Your task to perform on an android device: toggle pop-ups in chrome Image 0: 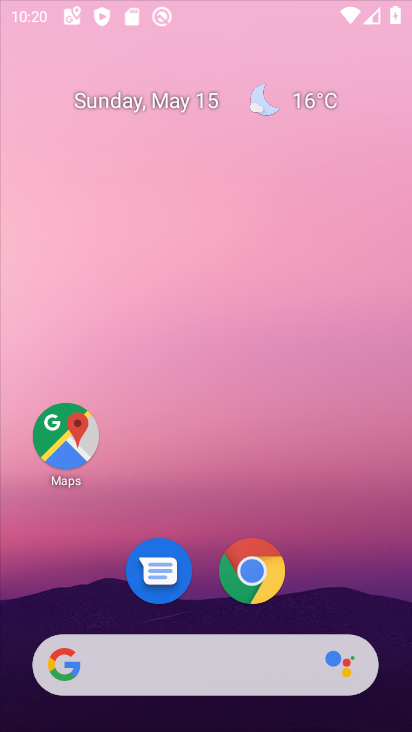
Step 0: press home button
Your task to perform on an android device: toggle pop-ups in chrome Image 1: 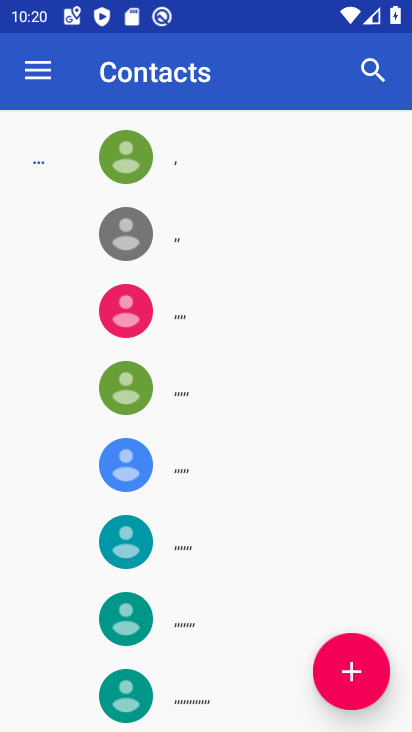
Step 1: press home button
Your task to perform on an android device: toggle pop-ups in chrome Image 2: 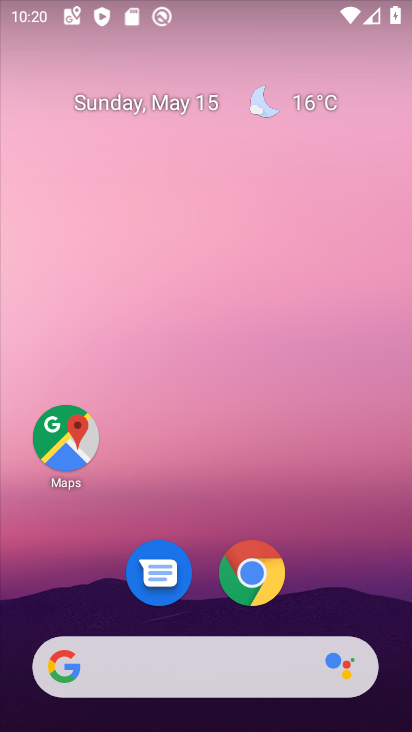
Step 2: click (232, 575)
Your task to perform on an android device: toggle pop-ups in chrome Image 3: 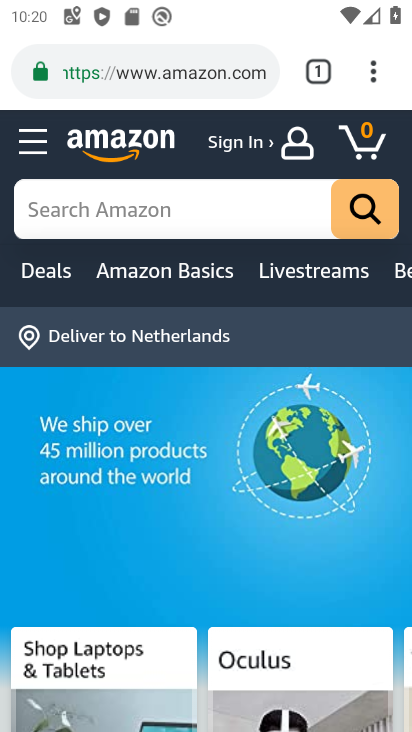
Step 3: click (366, 63)
Your task to perform on an android device: toggle pop-ups in chrome Image 4: 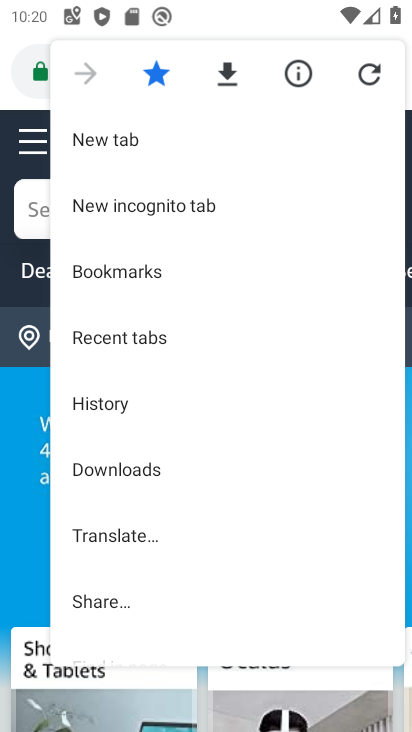
Step 4: drag from (197, 577) to (182, 144)
Your task to perform on an android device: toggle pop-ups in chrome Image 5: 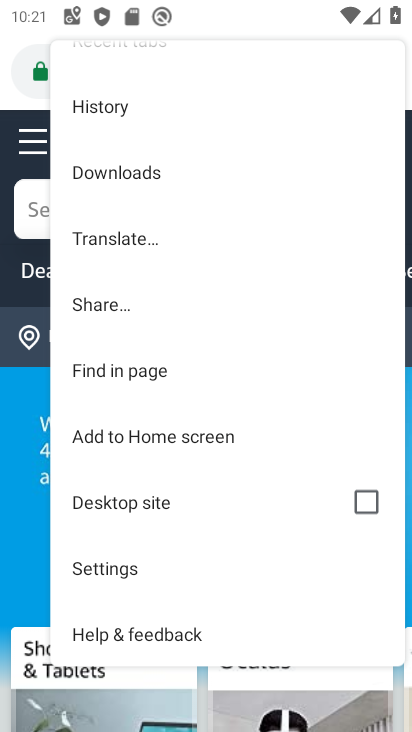
Step 5: click (111, 582)
Your task to perform on an android device: toggle pop-ups in chrome Image 6: 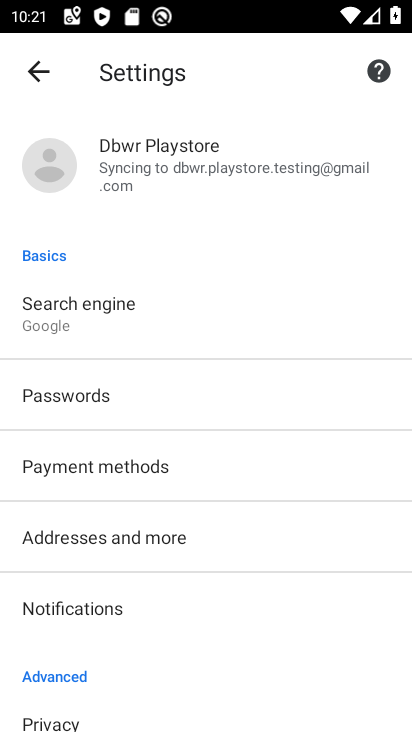
Step 6: drag from (109, 574) to (152, 303)
Your task to perform on an android device: toggle pop-ups in chrome Image 7: 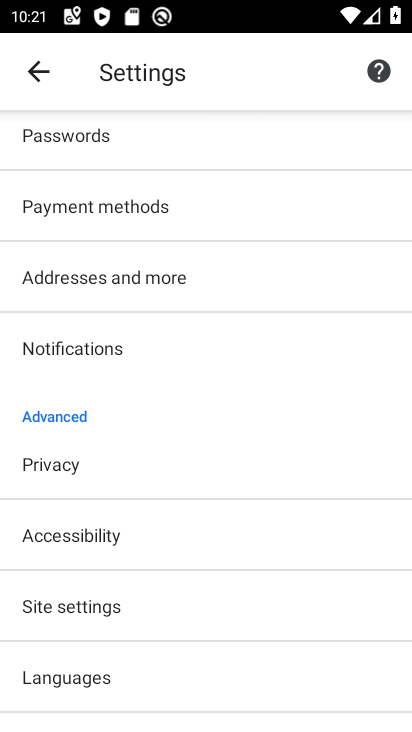
Step 7: click (97, 618)
Your task to perform on an android device: toggle pop-ups in chrome Image 8: 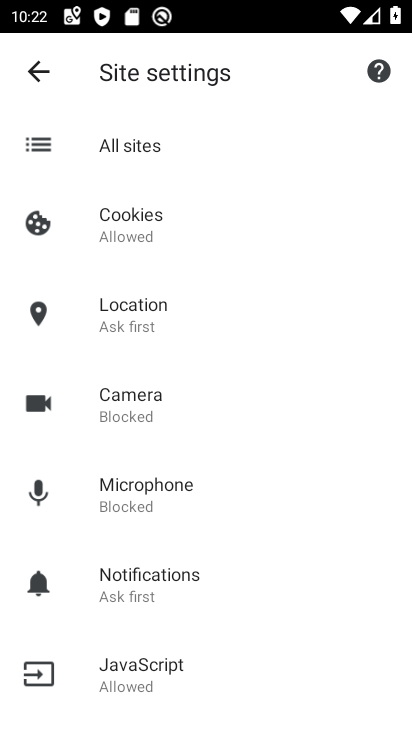
Step 8: drag from (99, 613) to (112, 299)
Your task to perform on an android device: toggle pop-ups in chrome Image 9: 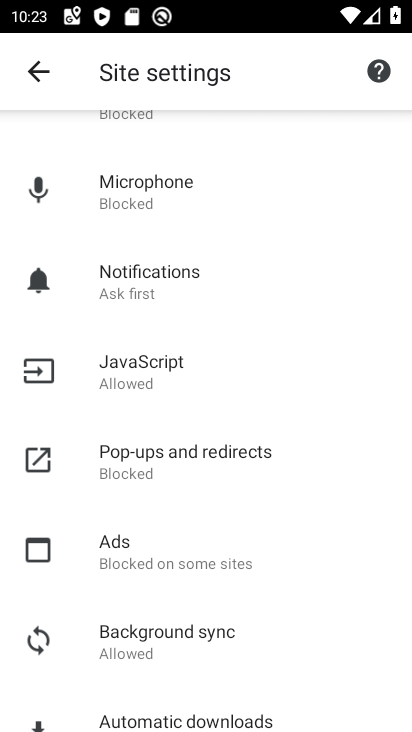
Step 9: click (158, 461)
Your task to perform on an android device: toggle pop-ups in chrome Image 10: 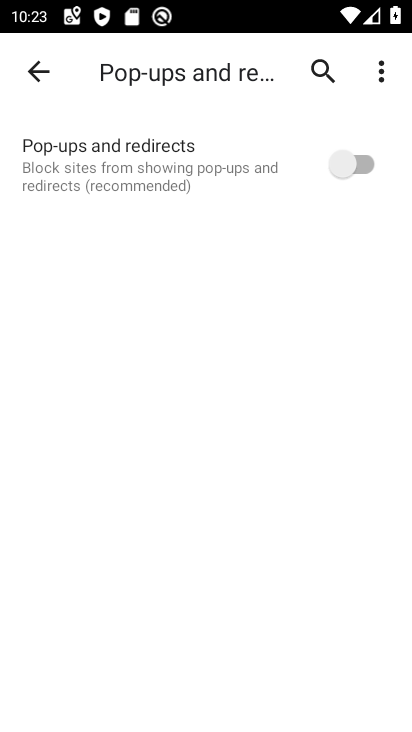
Step 10: click (317, 174)
Your task to perform on an android device: toggle pop-ups in chrome Image 11: 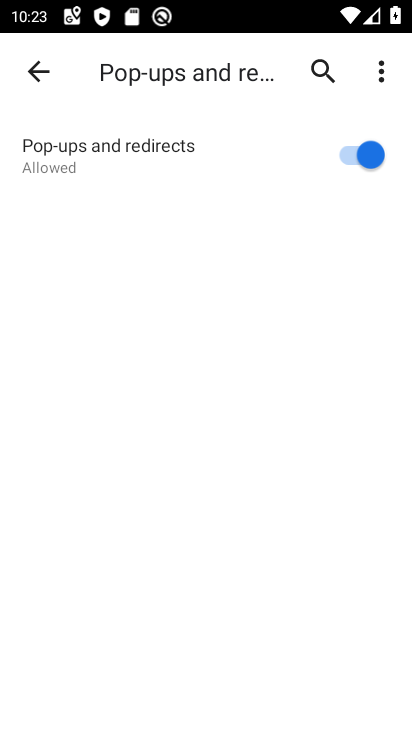
Step 11: task complete